Your task to perform on an android device: Open maps Image 0: 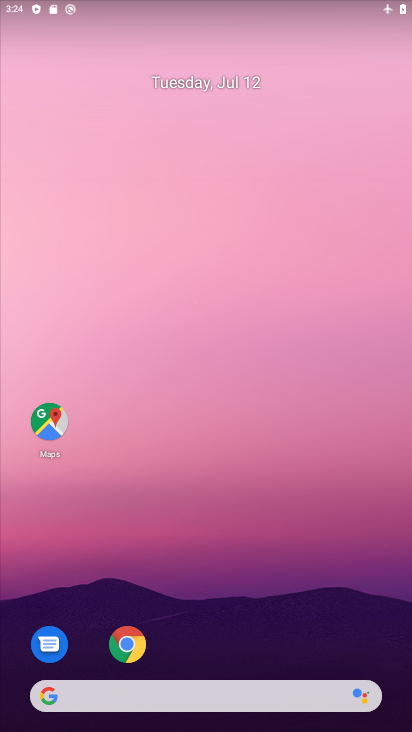
Step 0: drag from (328, 658) to (291, 110)
Your task to perform on an android device: Open maps Image 1: 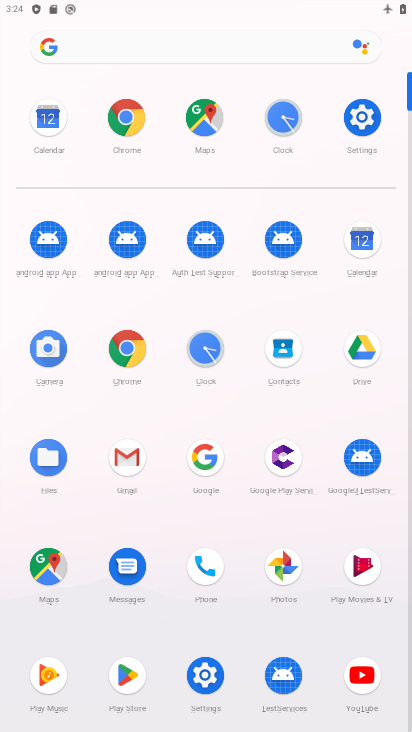
Step 1: click (205, 118)
Your task to perform on an android device: Open maps Image 2: 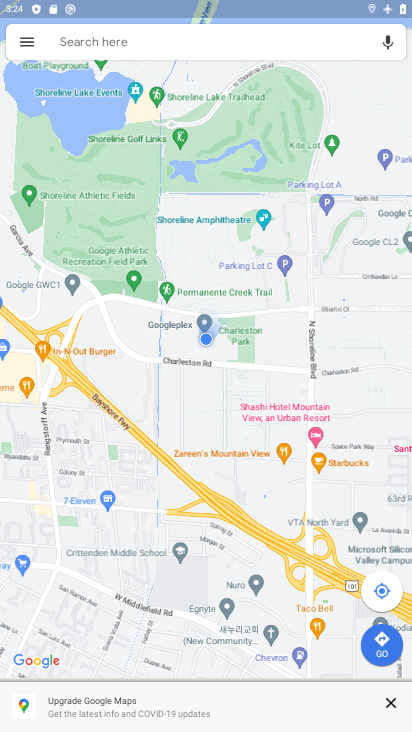
Step 2: task complete